Your task to perform on an android device: turn off location history Image 0: 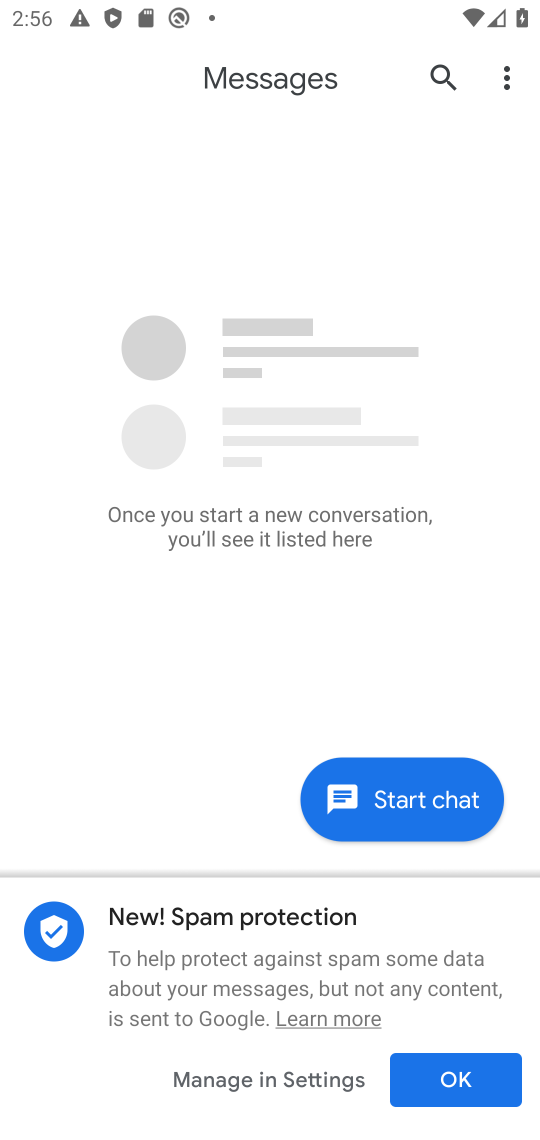
Step 0: press home button
Your task to perform on an android device: turn off location history Image 1: 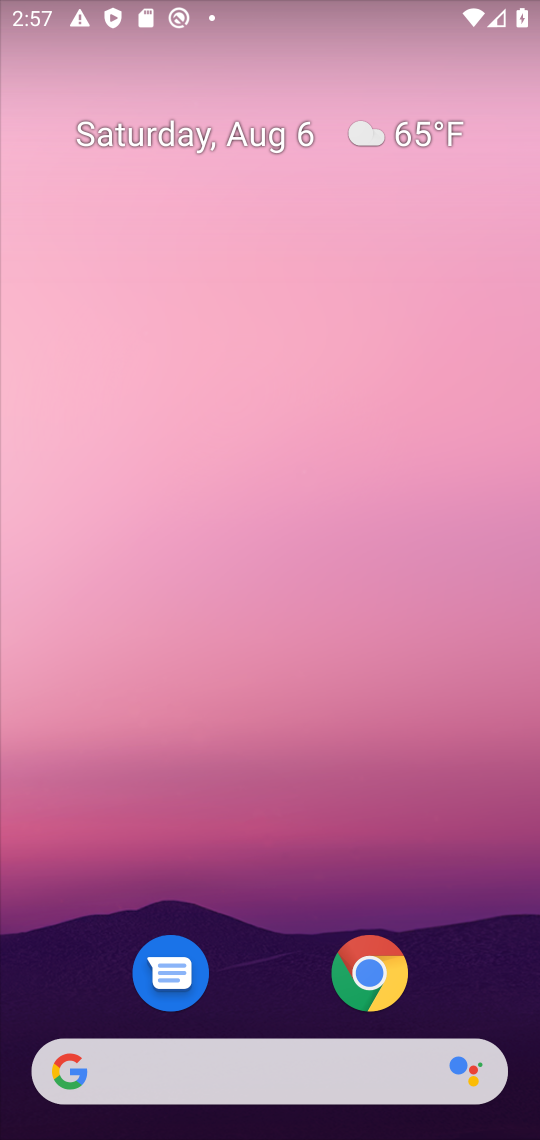
Step 1: drag from (262, 931) to (306, 2)
Your task to perform on an android device: turn off location history Image 2: 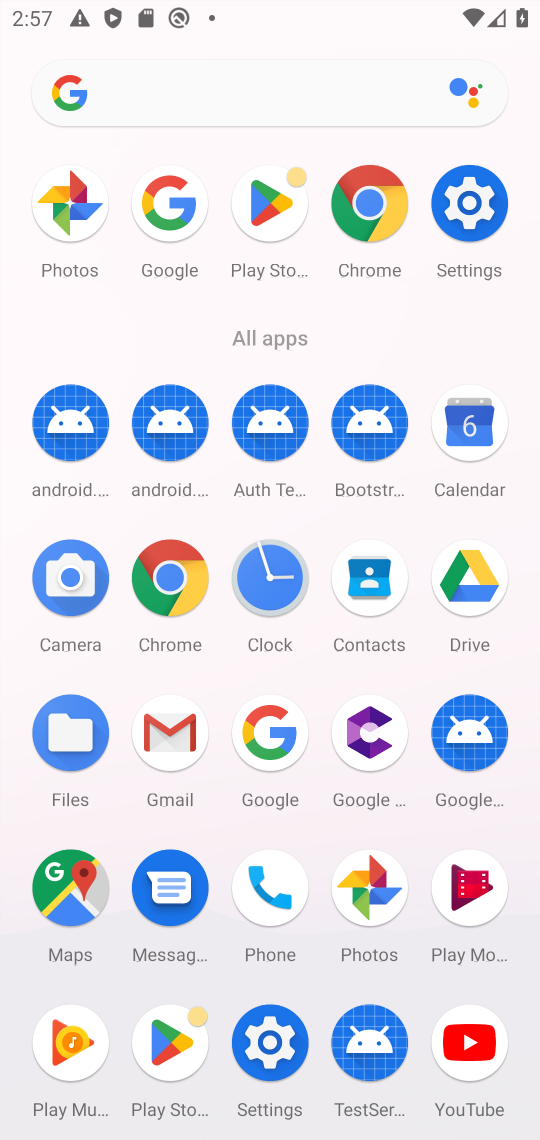
Step 2: click (267, 1041)
Your task to perform on an android device: turn off location history Image 3: 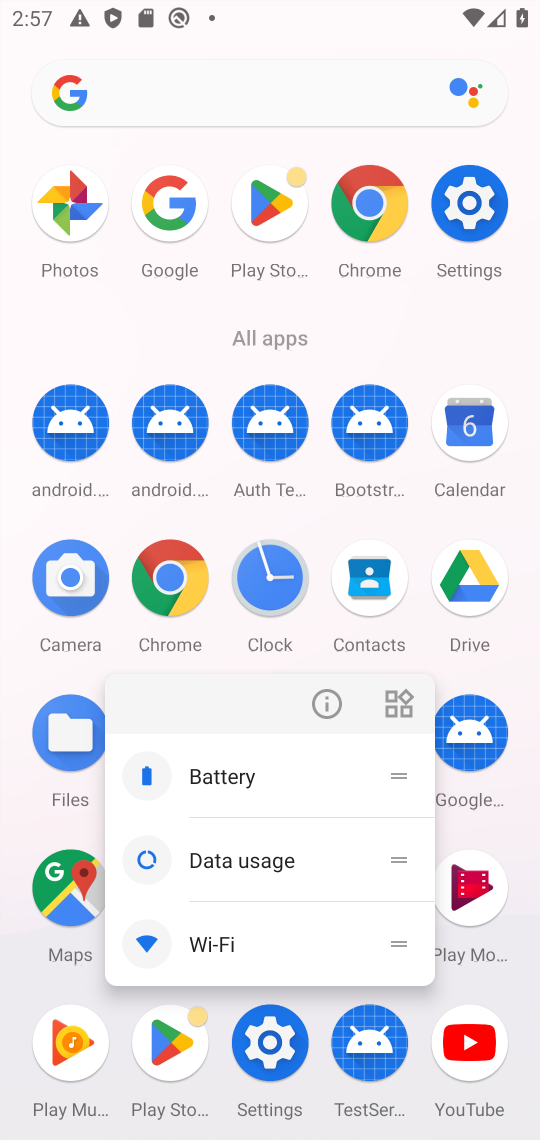
Step 3: click (267, 1029)
Your task to perform on an android device: turn off location history Image 4: 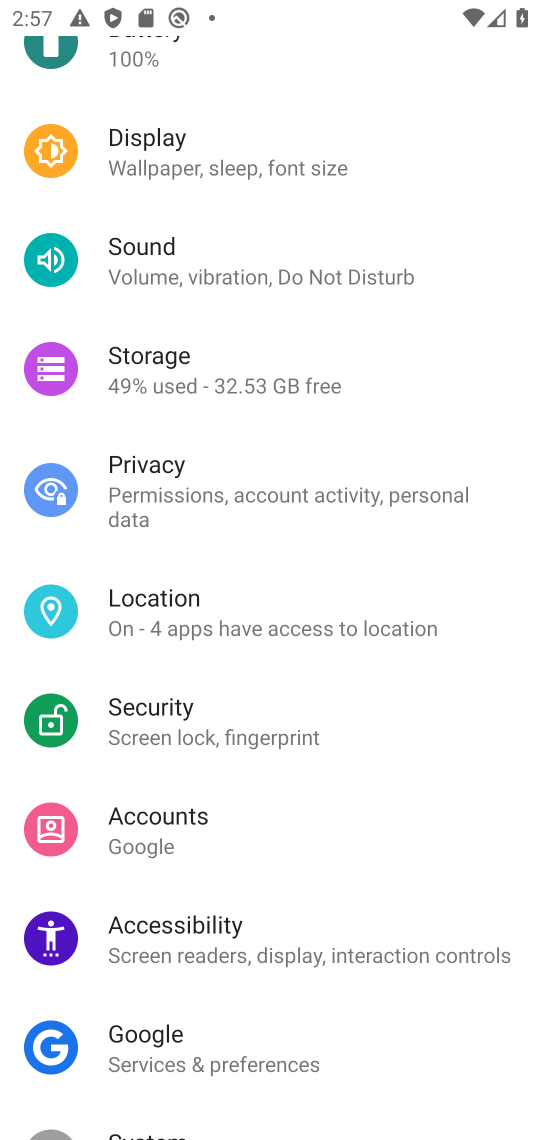
Step 4: click (181, 614)
Your task to perform on an android device: turn off location history Image 5: 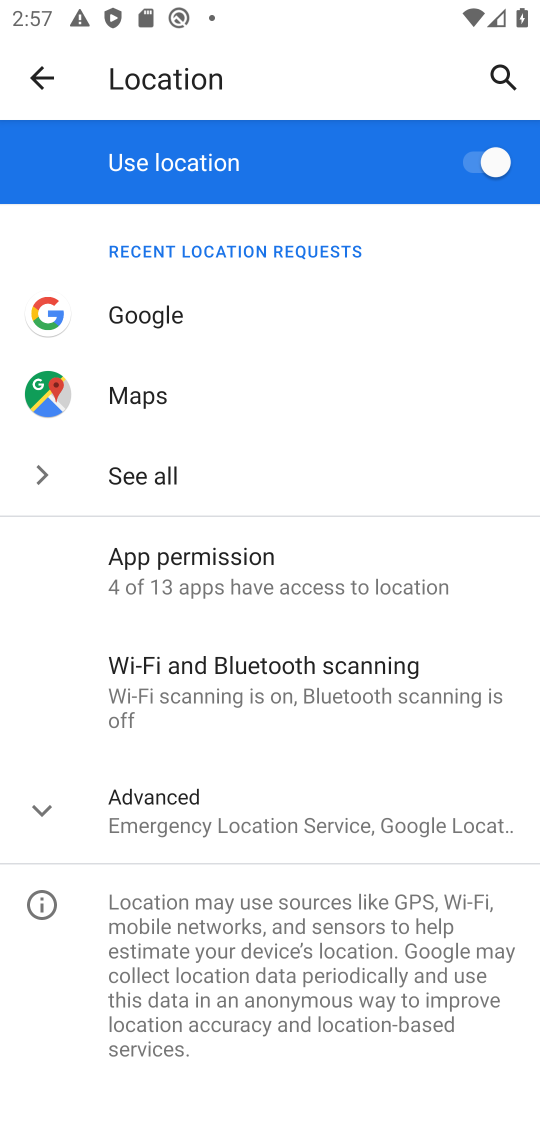
Step 5: click (174, 813)
Your task to perform on an android device: turn off location history Image 6: 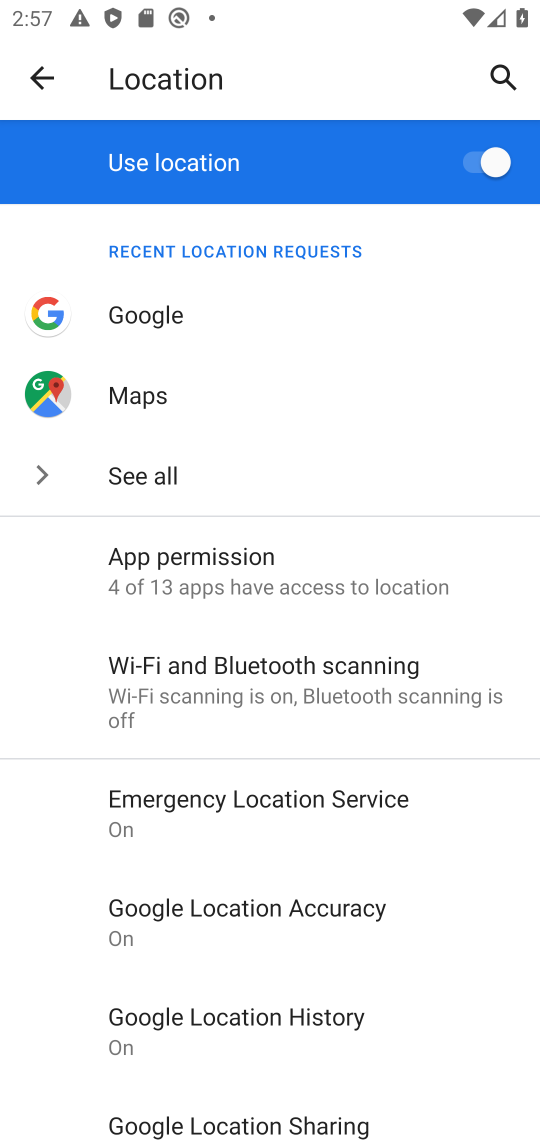
Step 6: click (328, 1008)
Your task to perform on an android device: turn off location history Image 7: 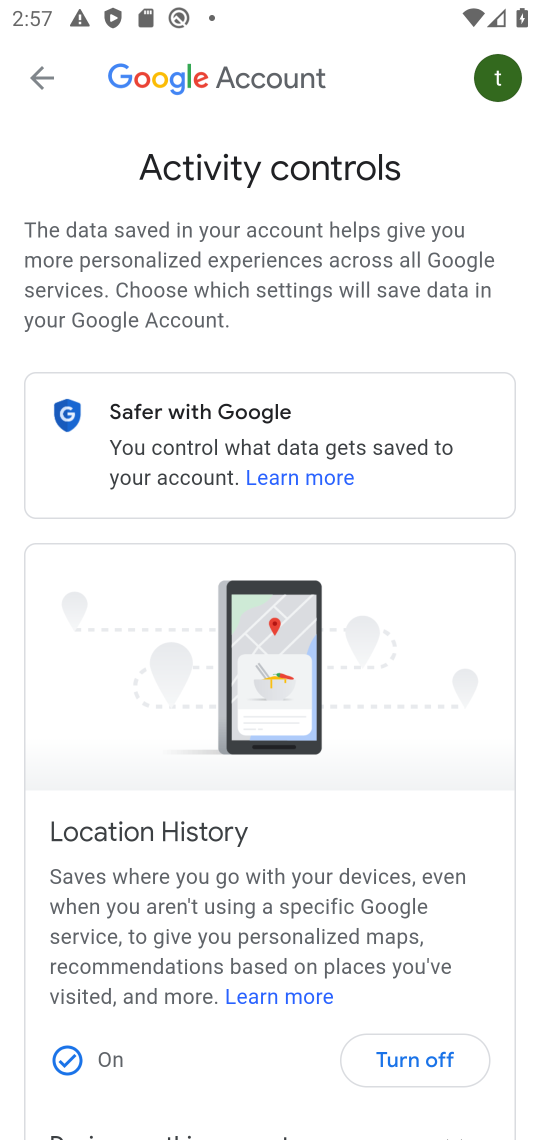
Step 7: click (431, 1057)
Your task to perform on an android device: turn off location history Image 8: 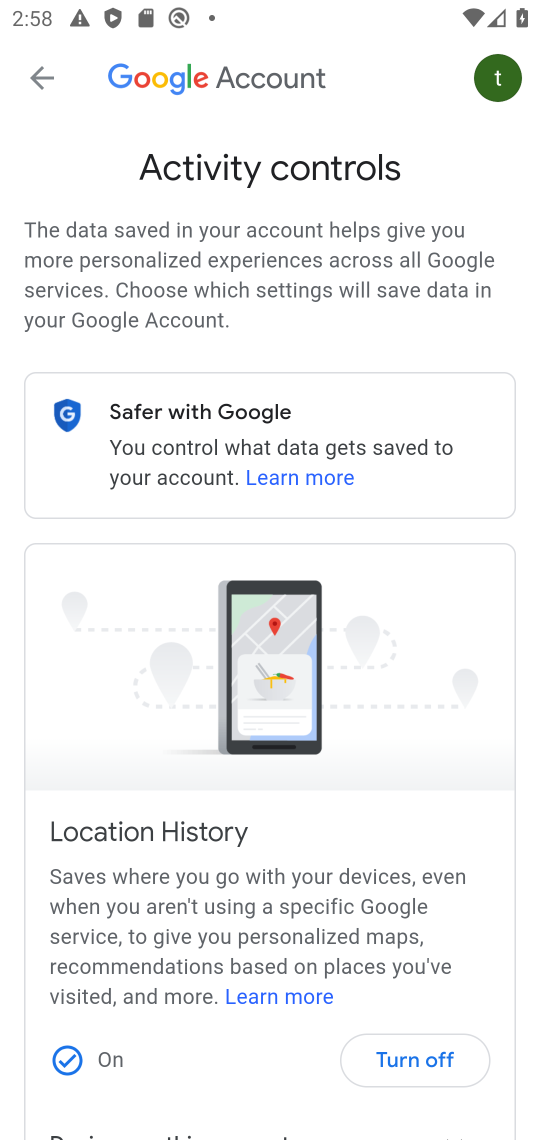
Step 8: click (431, 1057)
Your task to perform on an android device: turn off location history Image 9: 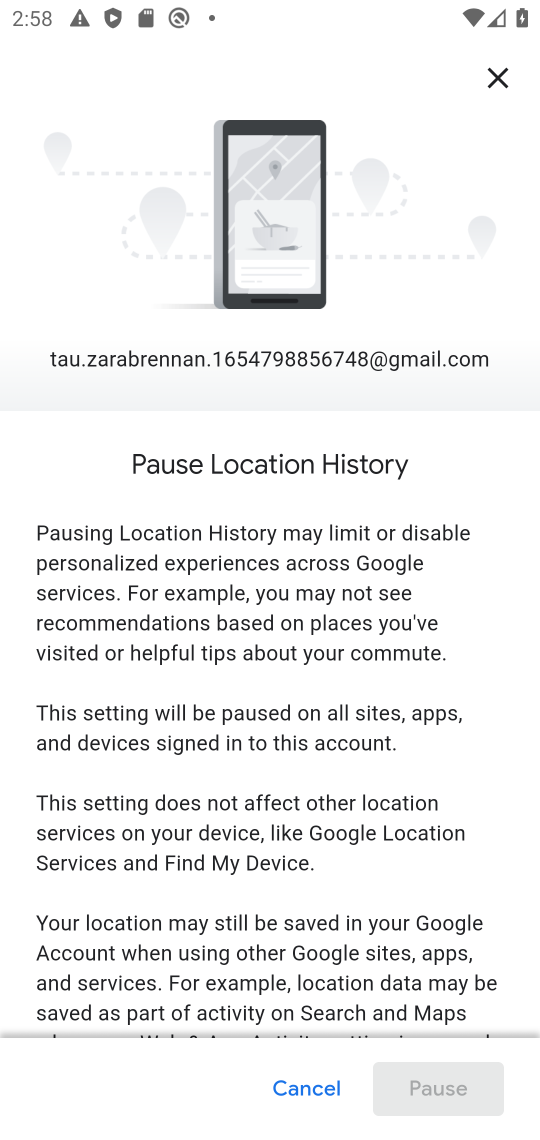
Step 9: drag from (403, 965) to (356, 177)
Your task to perform on an android device: turn off location history Image 10: 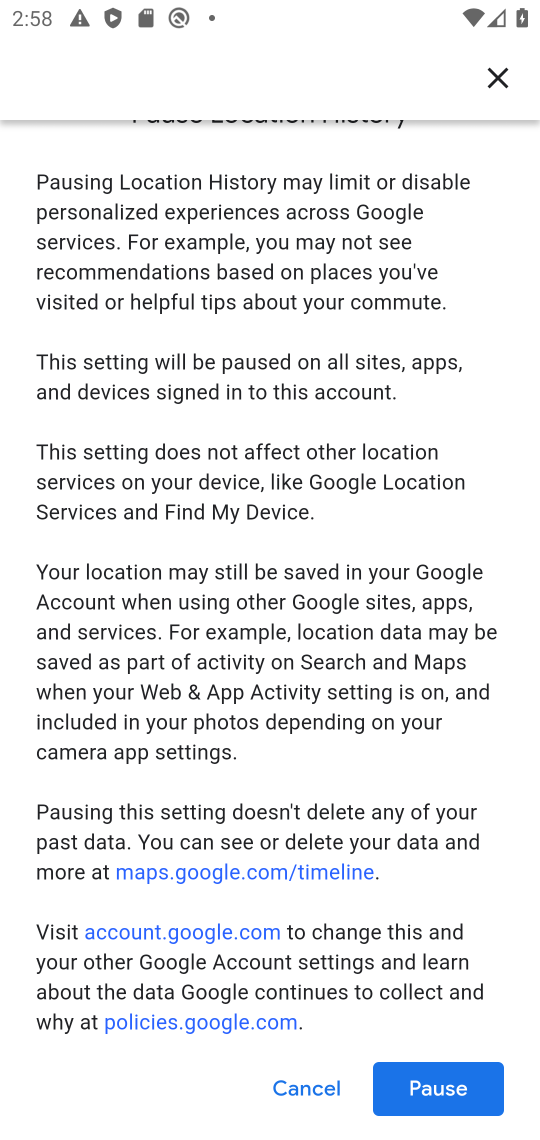
Step 10: click (474, 1099)
Your task to perform on an android device: turn off location history Image 11: 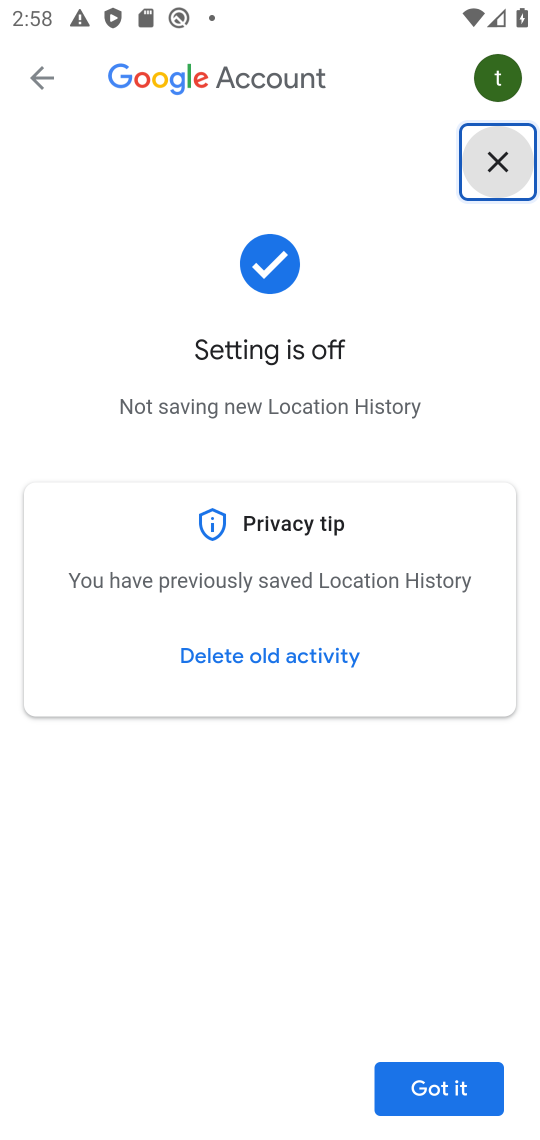
Step 11: task complete